Your task to perform on an android device: delete browsing data in the chrome app Image 0: 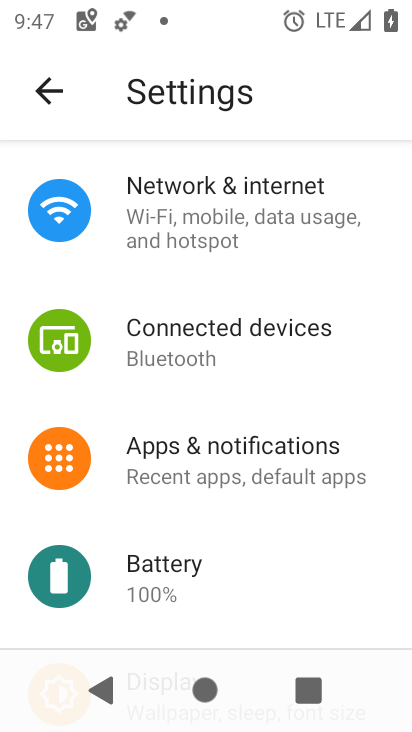
Step 0: press home button
Your task to perform on an android device: delete browsing data in the chrome app Image 1: 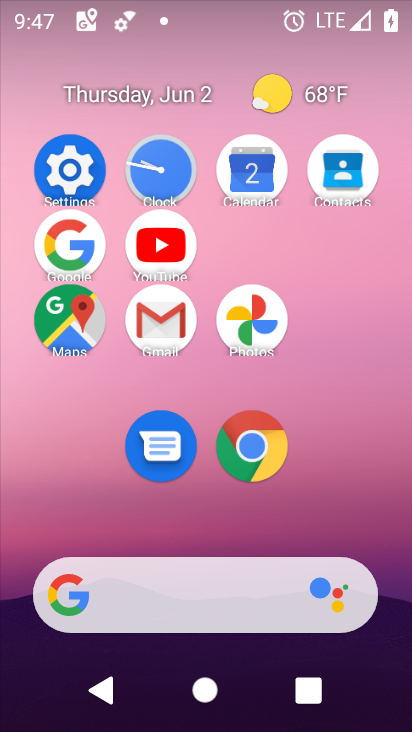
Step 1: click (265, 474)
Your task to perform on an android device: delete browsing data in the chrome app Image 2: 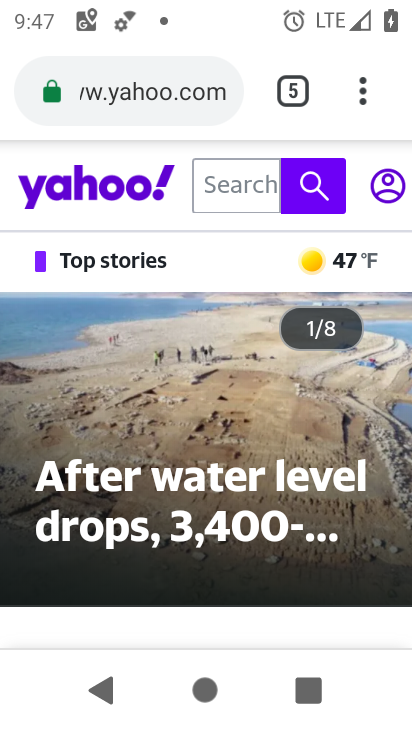
Step 2: click (367, 84)
Your task to perform on an android device: delete browsing data in the chrome app Image 3: 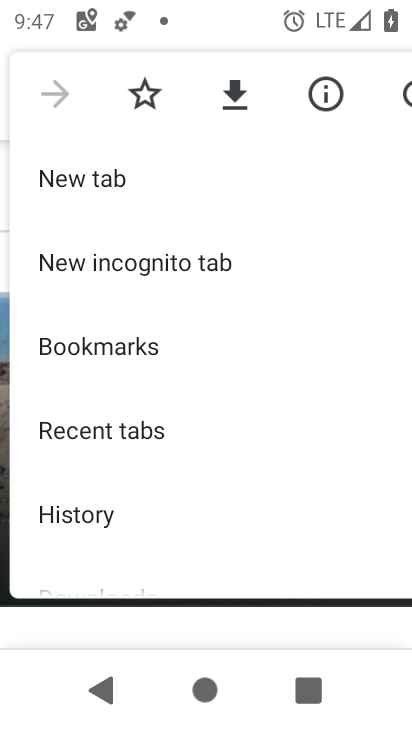
Step 3: drag from (260, 387) to (294, 149)
Your task to perform on an android device: delete browsing data in the chrome app Image 4: 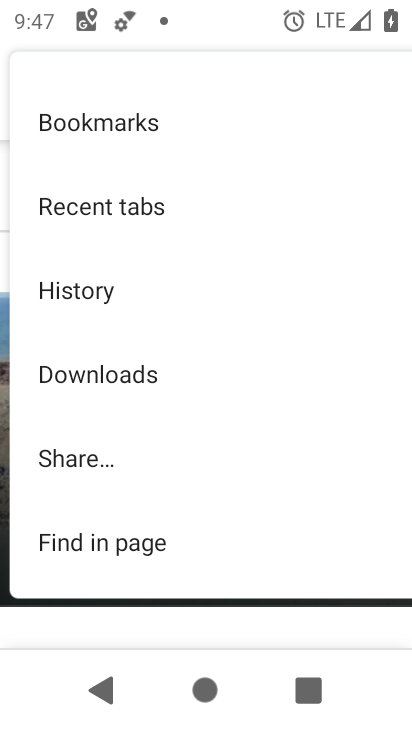
Step 4: drag from (220, 504) to (261, 175)
Your task to perform on an android device: delete browsing data in the chrome app Image 5: 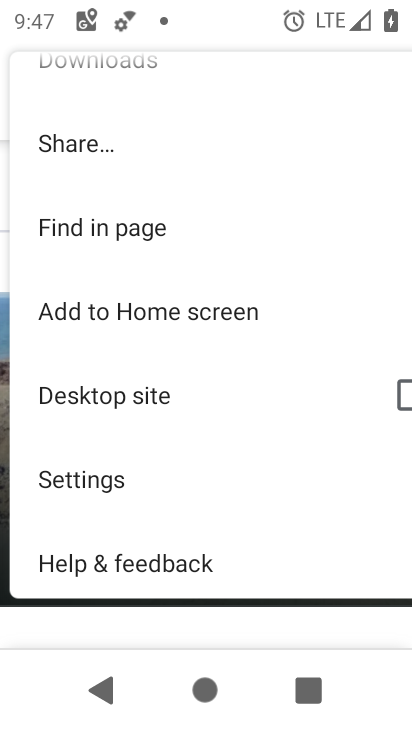
Step 5: click (187, 490)
Your task to perform on an android device: delete browsing data in the chrome app Image 6: 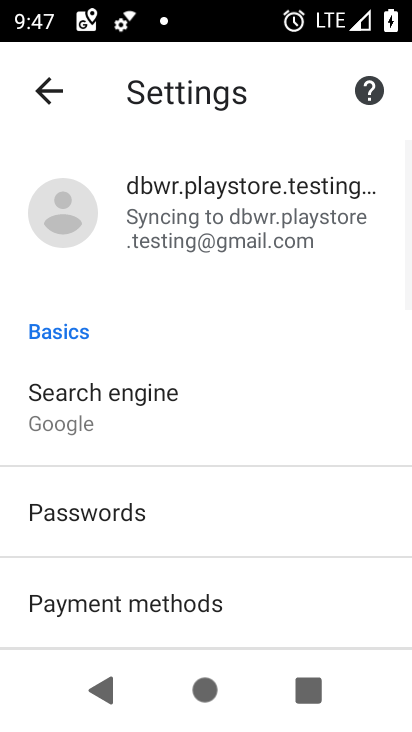
Step 6: drag from (245, 528) to (301, 233)
Your task to perform on an android device: delete browsing data in the chrome app Image 7: 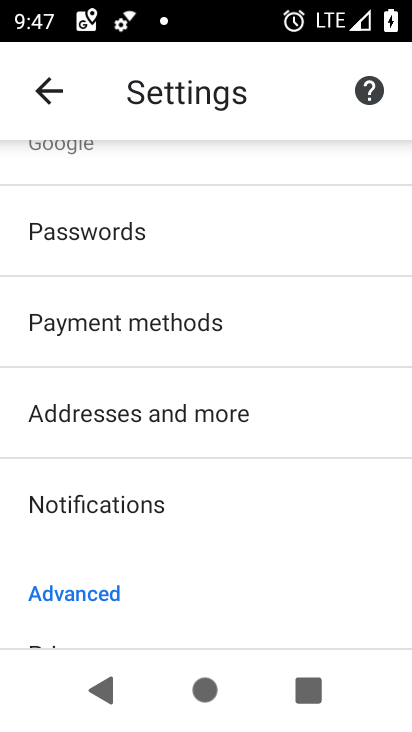
Step 7: drag from (259, 542) to (304, 191)
Your task to perform on an android device: delete browsing data in the chrome app Image 8: 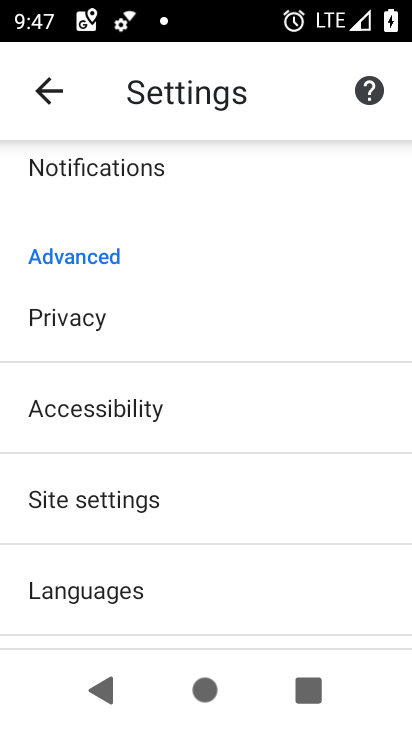
Step 8: drag from (213, 524) to (252, 227)
Your task to perform on an android device: delete browsing data in the chrome app Image 9: 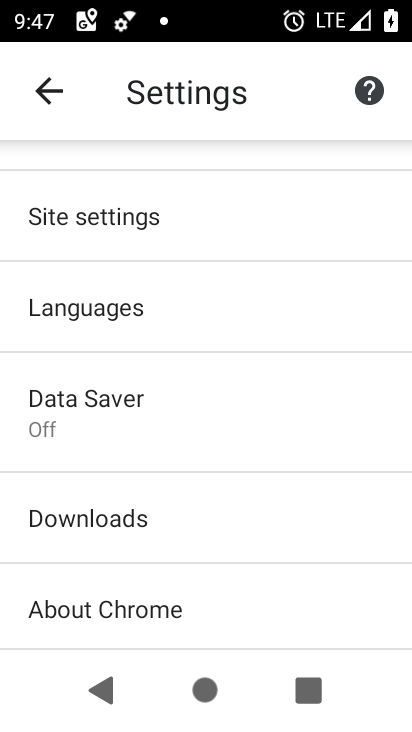
Step 9: drag from (226, 544) to (256, 248)
Your task to perform on an android device: delete browsing data in the chrome app Image 10: 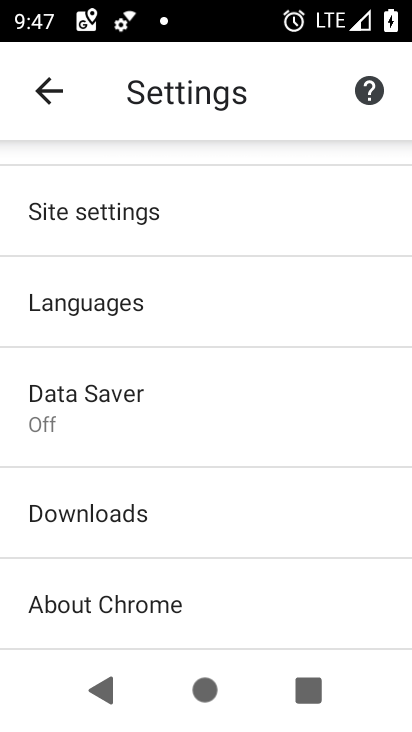
Step 10: drag from (189, 605) to (177, 222)
Your task to perform on an android device: delete browsing data in the chrome app Image 11: 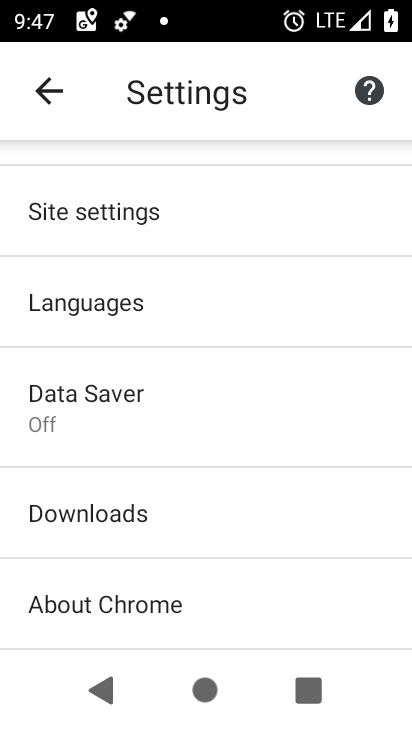
Step 11: drag from (311, 332) to (254, 669)
Your task to perform on an android device: delete browsing data in the chrome app Image 12: 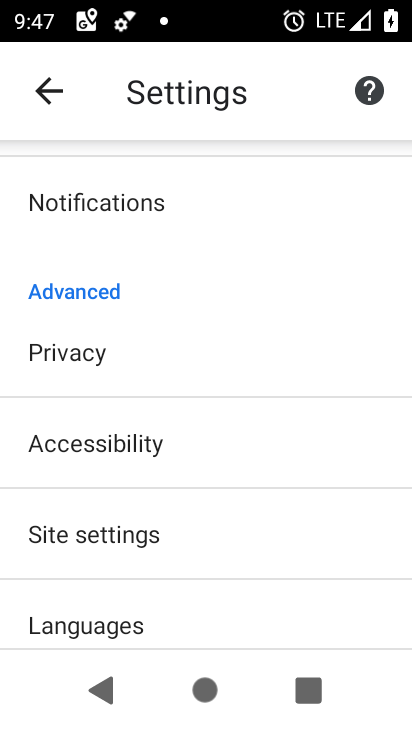
Step 12: click (207, 352)
Your task to perform on an android device: delete browsing data in the chrome app Image 13: 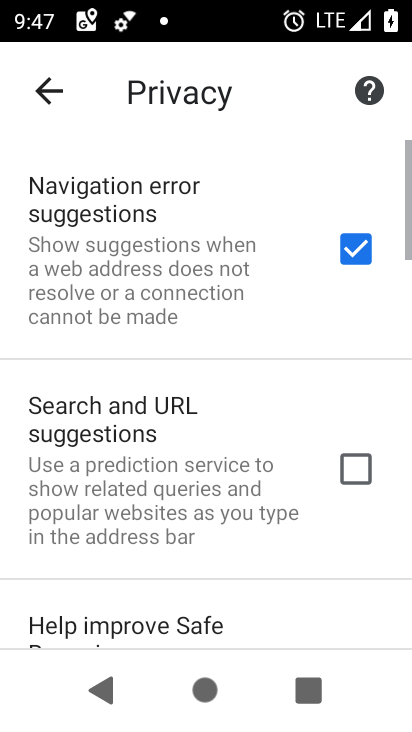
Step 13: drag from (255, 452) to (244, 249)
Your task to perform on an android device: delete browsing data in the chrome app Image 14: 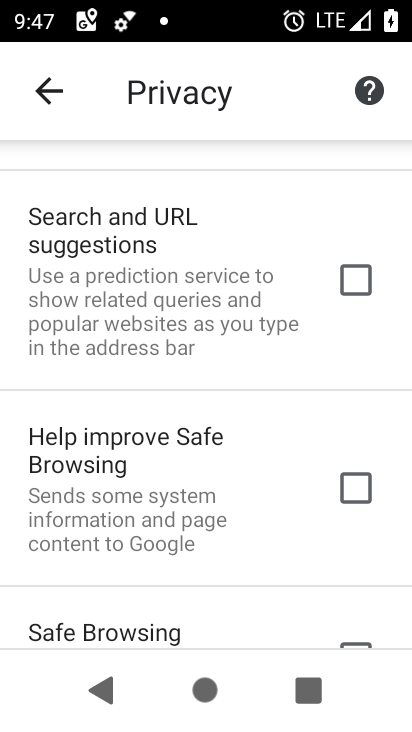
Step 14: drag from (245, 553) to (258, 170)
Your task to perform on an android device: delete browsing data in the chrome app Image 15: 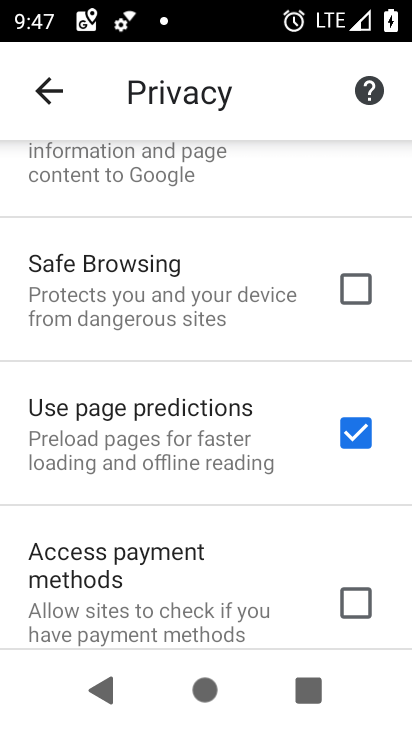
Step 15: drag from (243, 533) to (243, 183)
Your task to perform on an android device: delete browsing data in the chrome app Image 16: 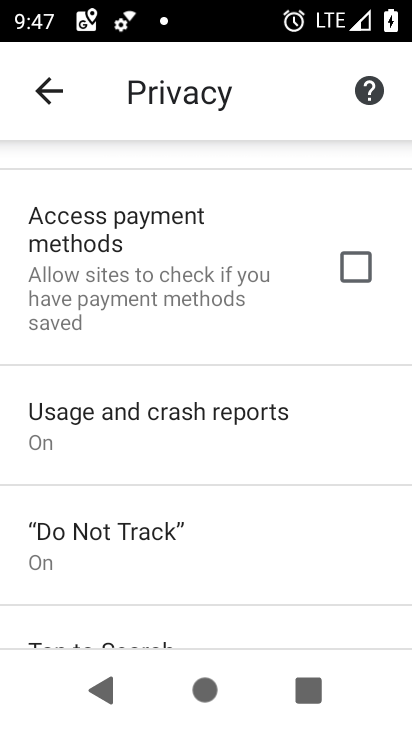
Step 16: drag from (235, 555) to (270, 207)
Your task to perform on an android device: delete browsing data in the chrome app Image 17: 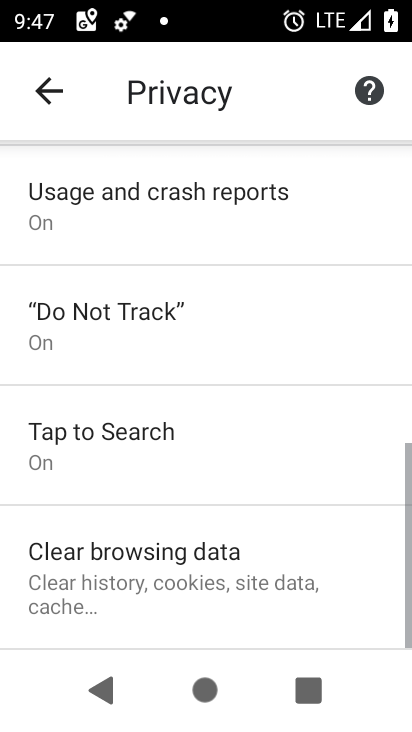
Step 17: click (246, 582)
Your task to perform on an android device: delete browsing data in the chrome app Image 18: 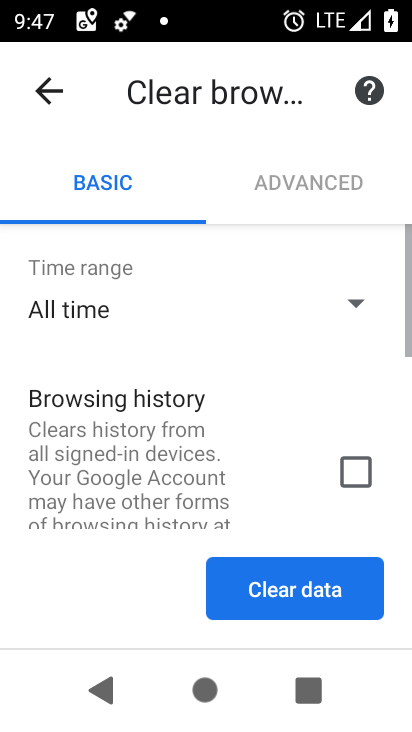
Step 18: drag from (249, 585) to (249, 178)
Your task to perform on an android device: delete browsing data in the chrome app Image 19: 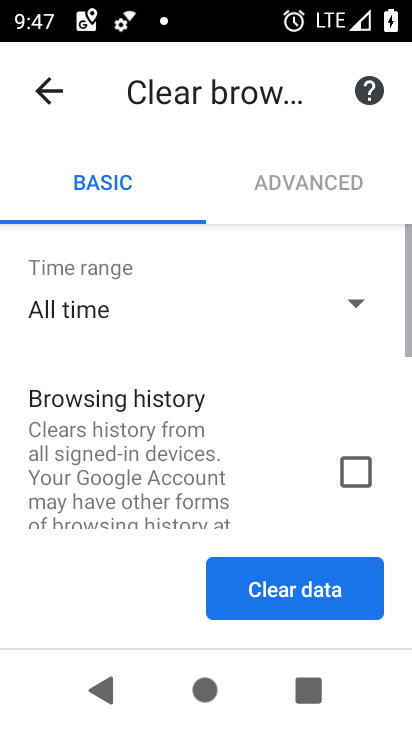
Step 19: drag from (196, 500) to (226, 183)
Your task to perform on an android device: delete browsing data in the chrome app Image 20: 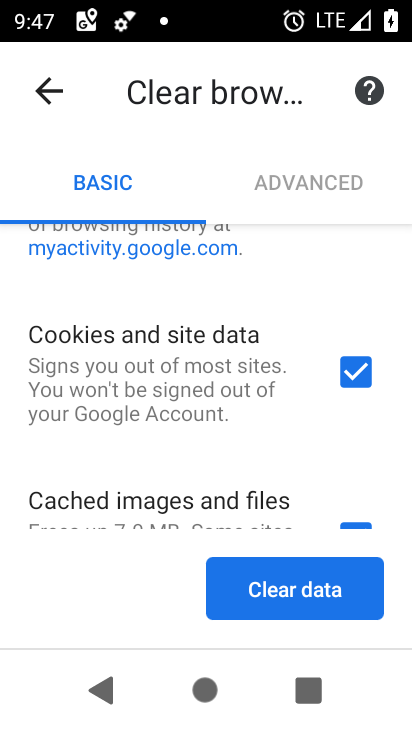
Step 20: drag from (185, 438) to (255, 162)
Your task to perform on an android device: delete browsing data in the chrome app Image 21: 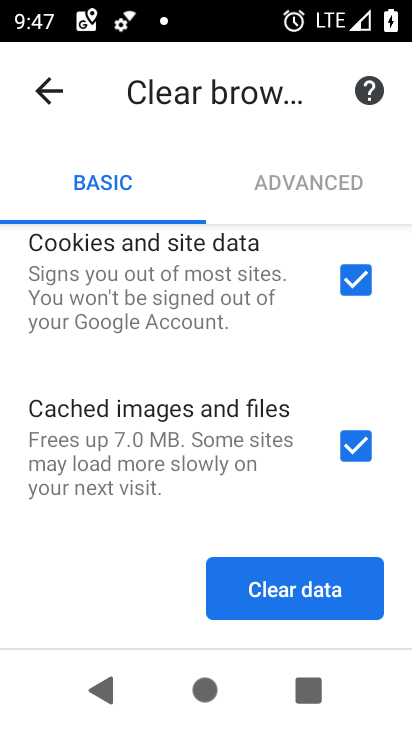
Step 21: drag from (231, 460) to (259, 168)
Your task to perform on an android device: delete browsing data in the chrome app Image 22: 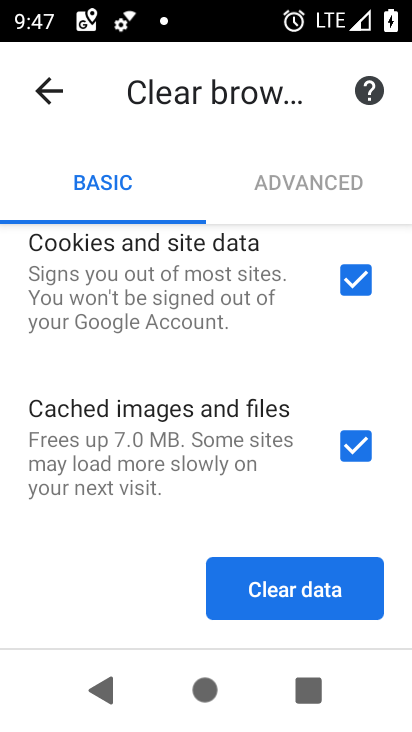
Step 22: click (293, 579)
Your task to perform on an android device: delete browsing data in the chrome app Image 23: 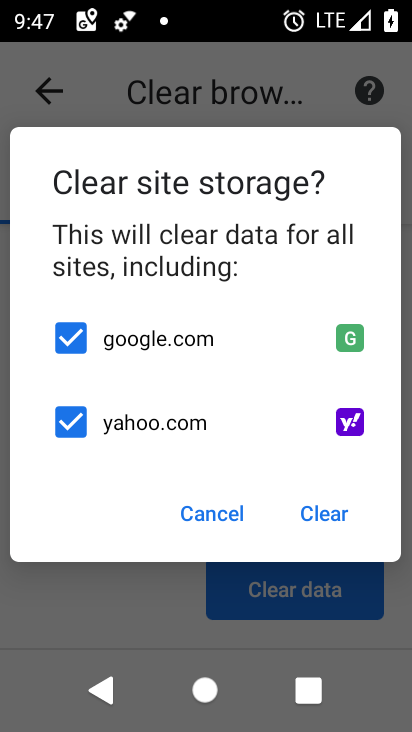
Step 23: click (224, 517)
Your task to perform on an android device: delete browsing data in the chrome app Image 24: 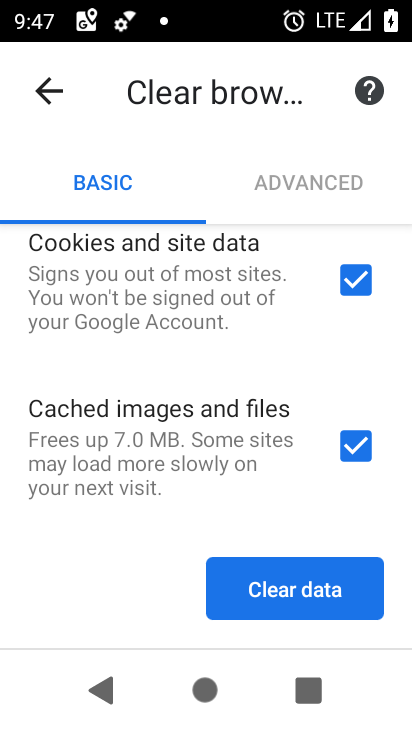
Step 24: drag from (211, 323) to (257, 540)
Your task to perform on an android device: delete browsing data in the chrome app Image 25: 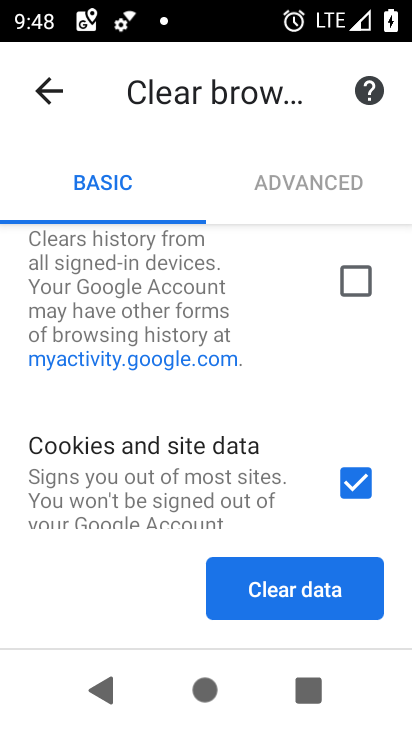
Step 25: drag from (205, 326) to (233, 430)
Your task to perform on an android device: delete browsing data in the chrome app Image 26: 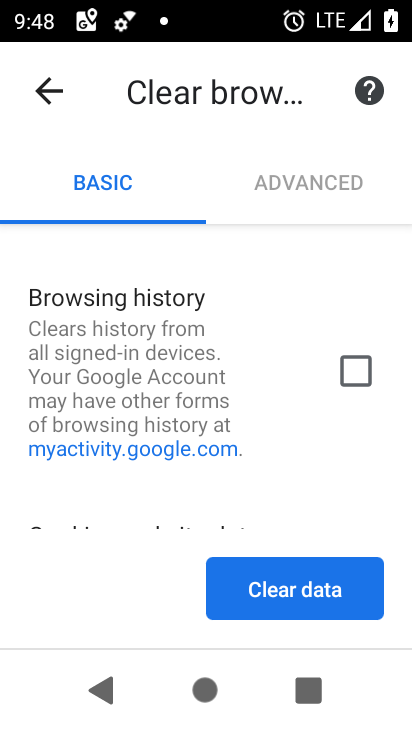
Step 26: click (296, 600)
Your task to perform on an android device: delete browsing data in the chrome app Image 27: 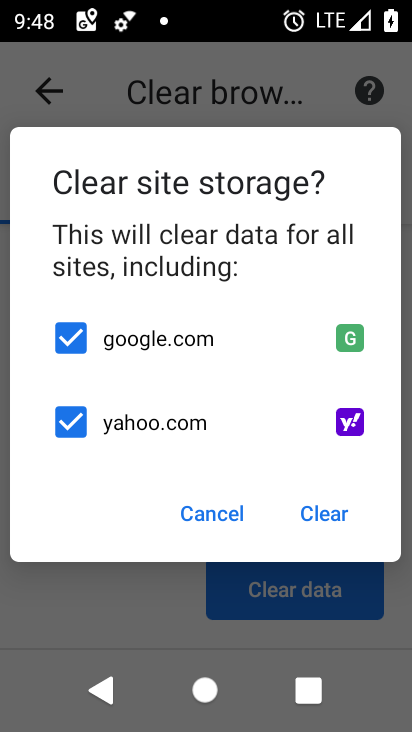
Step 27: click (343, 513)
Your task to perform on an android device: delete browsing data in the chrome app Image 28: 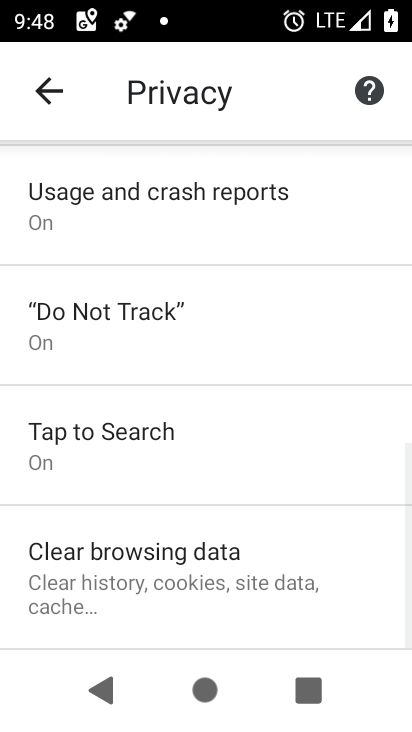
Step 28: task complete